Your task to perform on an android device: all mails in gmail Image 0: 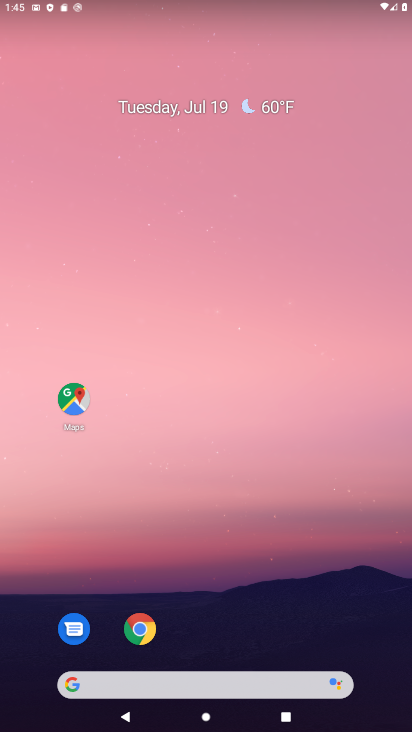
Step 0: drag from (382, 646) to (341, 60)
Your task to perform on an android device: all mails in gmail Image 1: 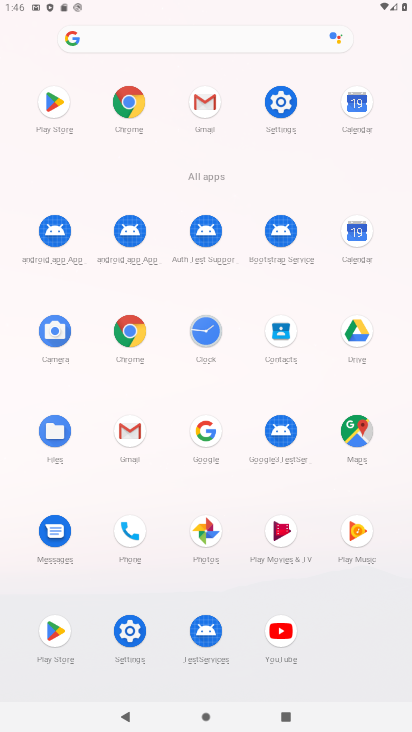
Step 1: click (129, 433)
Your task to perform on an android device: all mails in gmail Image 2: 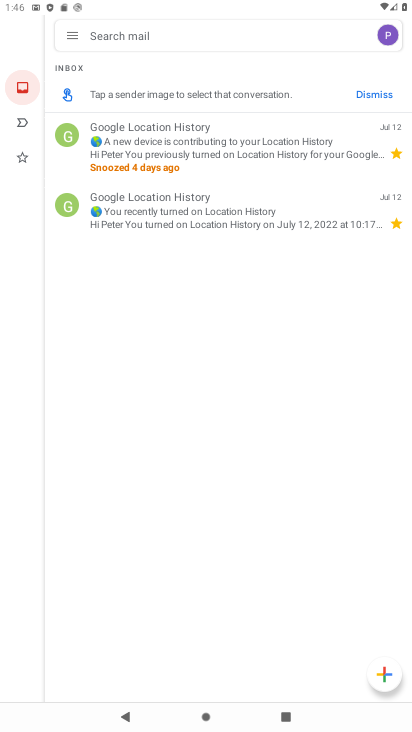
Step 2: click (67, 35)
Your task to perform on an android device: all mails in gmail Image 3: 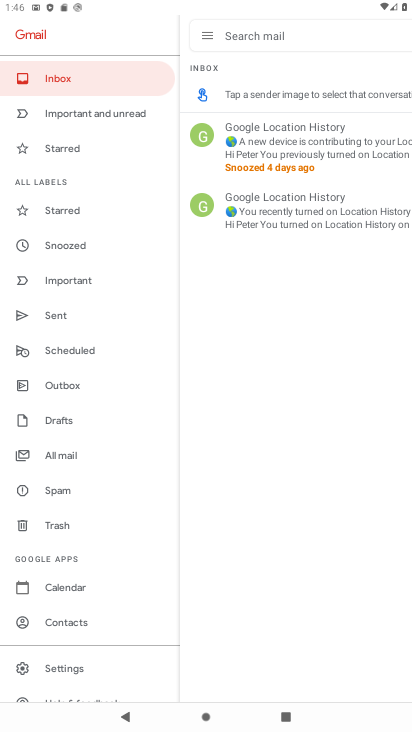
Step 3: click (64, 456)
Your task to perform on an android device: all mails in gmail Image 4: 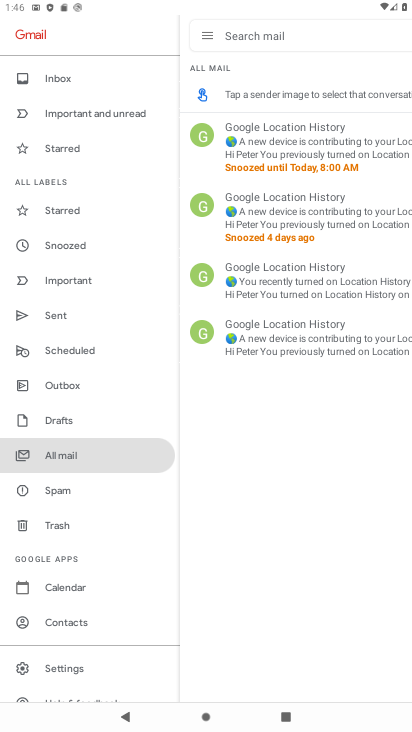
Step 4: task complete